Your task to perform on an android device: change keyboard looks Image 0: 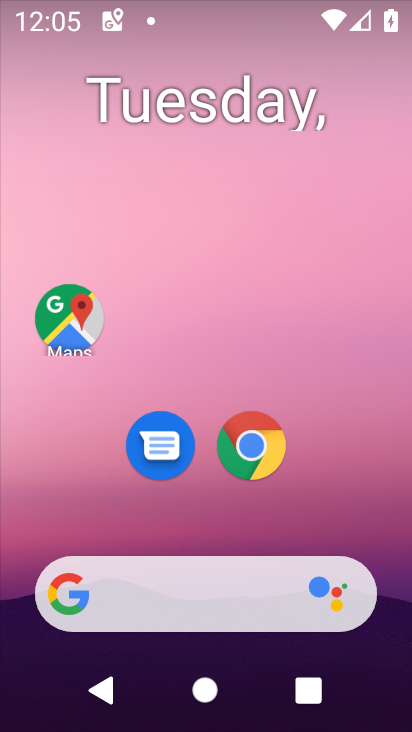
Step 0: drag from (327, 469) to (260, 117)
Your task to perform on an android device: change keyboard looks Image 1: 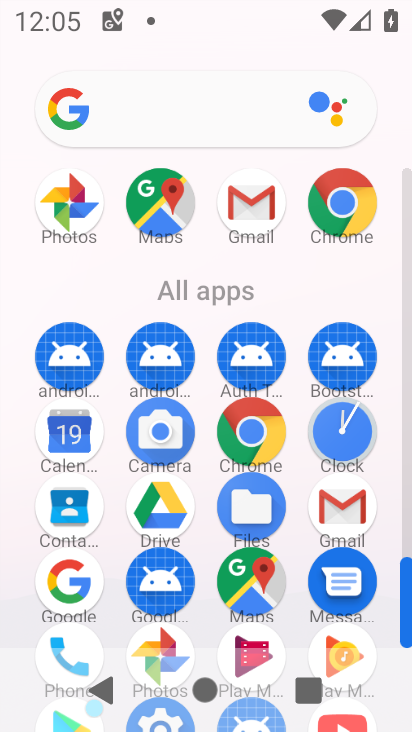
Step 1: drag from (299, 589) to (310, 315)
Your task to perform on an android device: change keyboard looks Image 2: 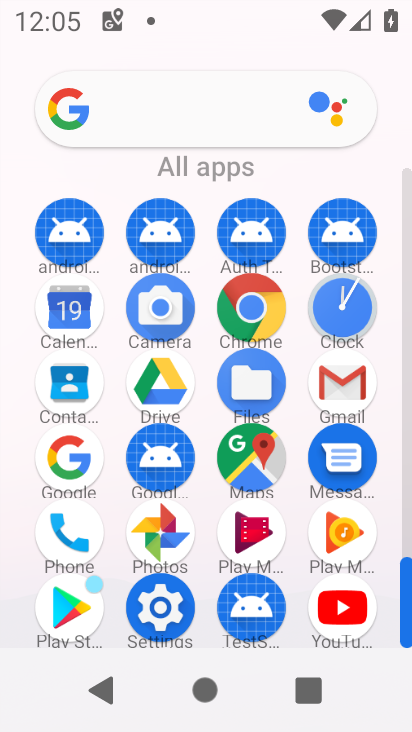
Step 2: click (167, 601)
Your task to perform on an android device: change keyboard looks Image 3: 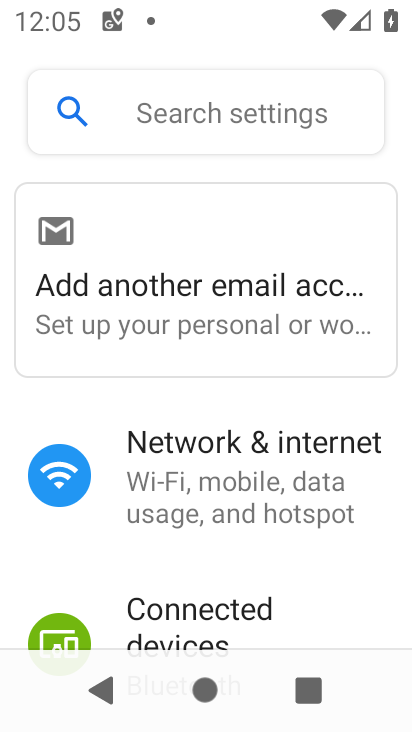
Step 3: drag from (314, 557) to (276, 140)
Your task to perform on an android device: change keyboard looks Image 4: 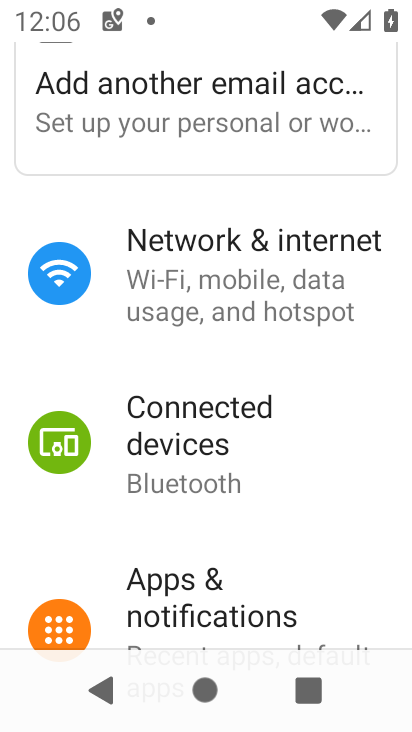
Step 4: drag from (287, 558) to (222, 129)
Your task to perform on an android device: change keyboard looks Image 5: 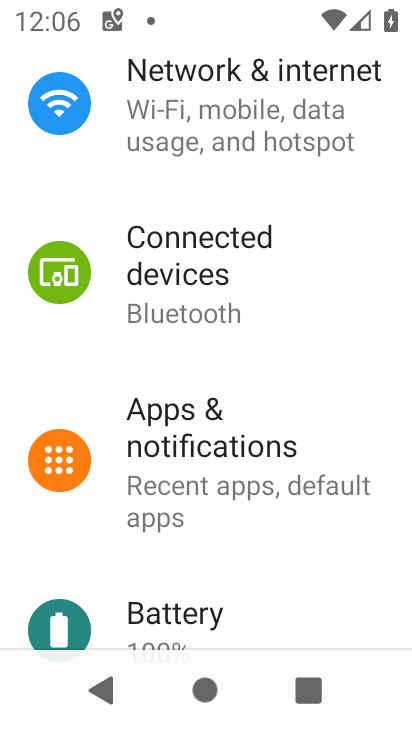
Step 5: drag from (219, 571) to (211, 160)
Your task to perform on an android device: change keyboard looks Image 6: 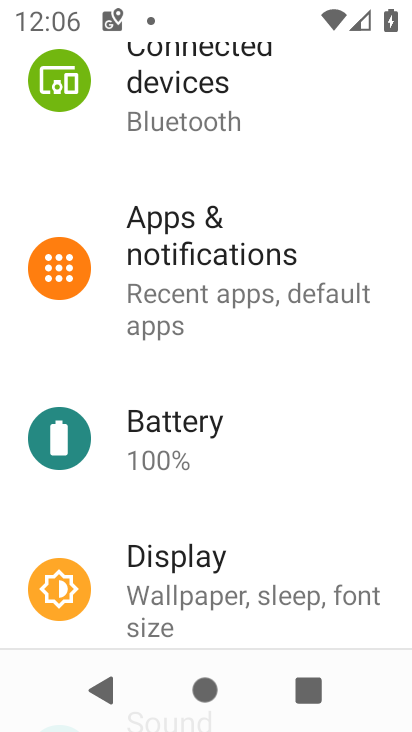
Step 6: drag from (233, 567) to (252, 246)
Your task to perform on an android device: change keyboard looks Image 7: 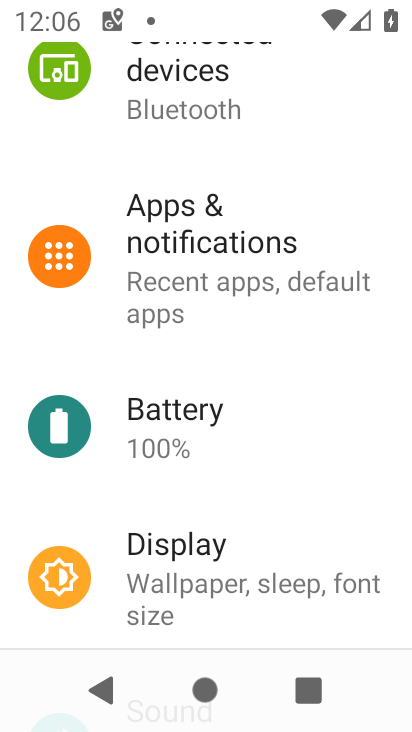
Step 7: drag from (239, 557) to (266, 240)
Your task to perform on an android device: change keyboard looks Image 8: 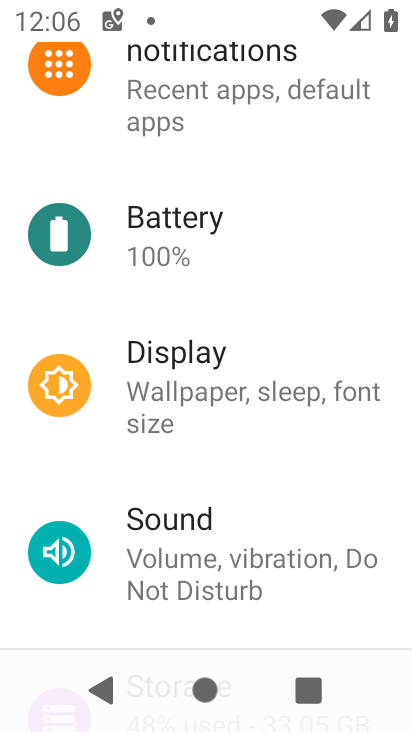
Step 8: drag from (344, 605) to (310, 147)
Your task to perform on an android device: change keyboard looks Image 9: 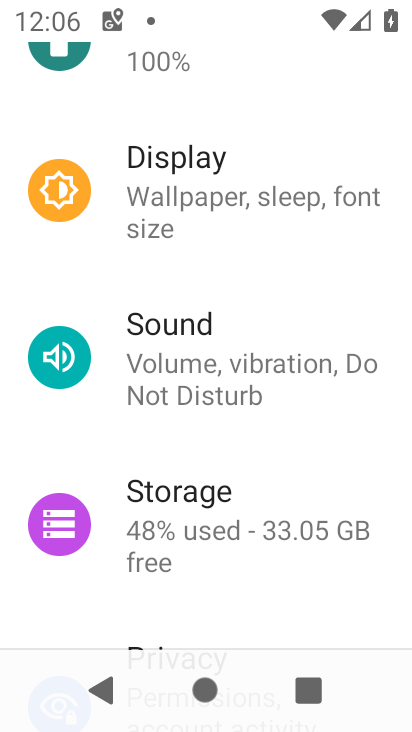
Step 9: drag from (250, 447) to (210, 203)
Your task to perform on an android device: change keyboard looks Image 10: 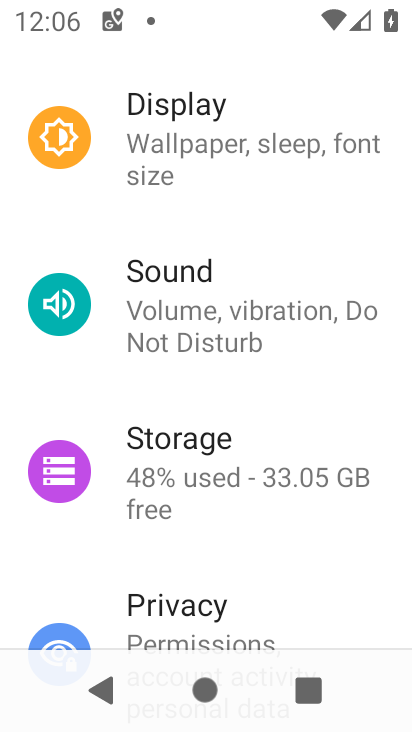
Step 10: drag from (277, 561) to (234, 196)
Your task to perform on an android device: change keyboard looks Image 11: 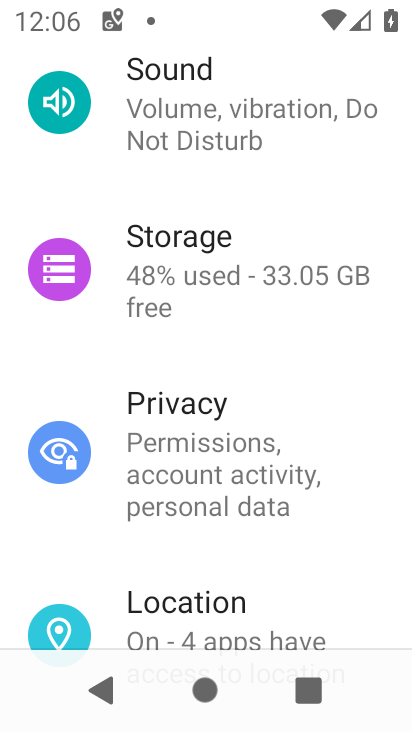
Step 11: drag from (280, 580) to (279, 278)
Your task to perform on an android device: change keyboard looks Image 12: 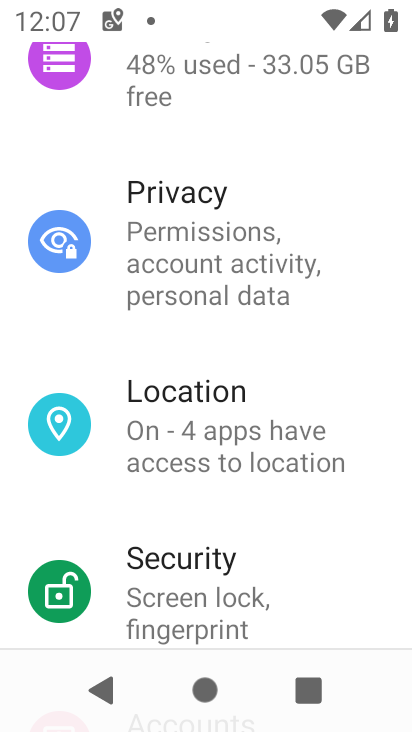
Step 12: drag from (299, 569) to (269, 136)
Your task to perform on an android device: change keyboard looks Image 13: 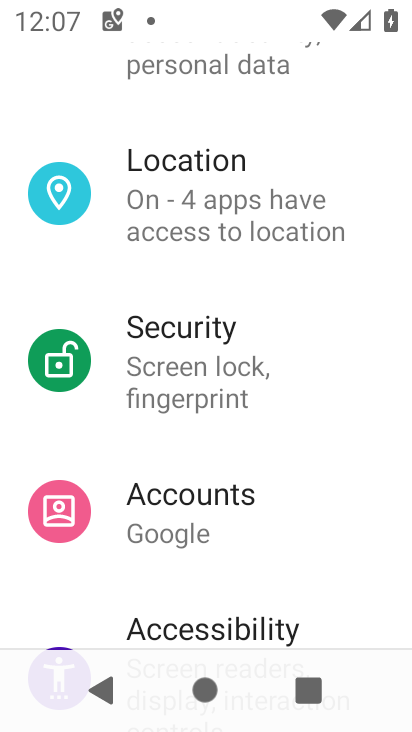
Step 13: drag from (218, 575) to (249, 152)
Your task to perform on an android device: change keyboard looks Image 14: 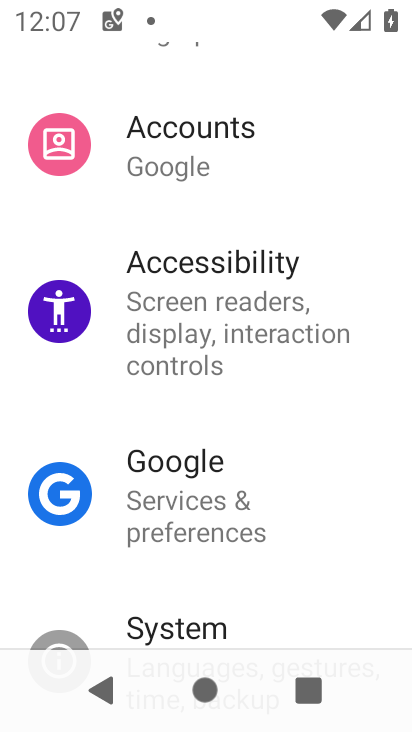
Step 14: drag from (283, 569) to (268, 190)
Your task to perform on an android device: change keyboard looks Image 15: 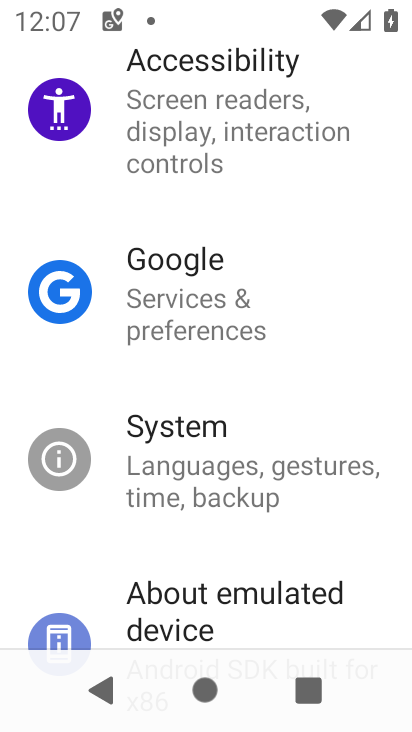
Step 15: click (245, 484)
Your task to perform on an android device: change keyboard looks Image 16: 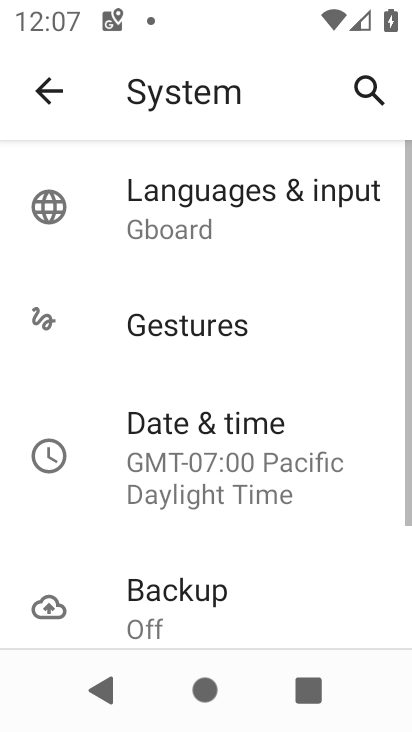
Step 16: click (205, 218)
Your task to perform on an android device: change keyboard looks Image 17: 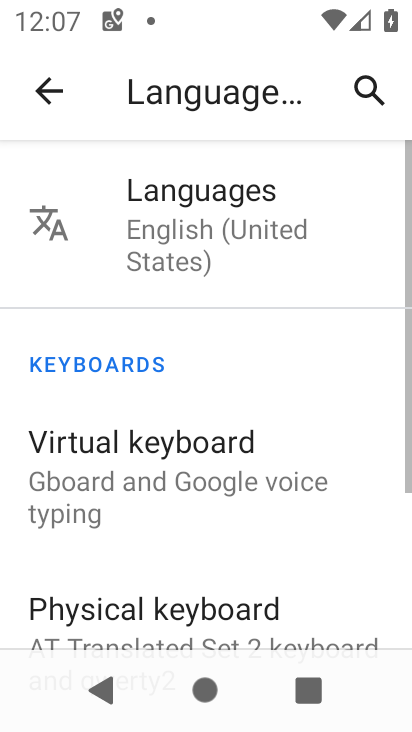
Step 17: click (203, 455)
Your task to perform on an android device: change keyboard looks Image 18: 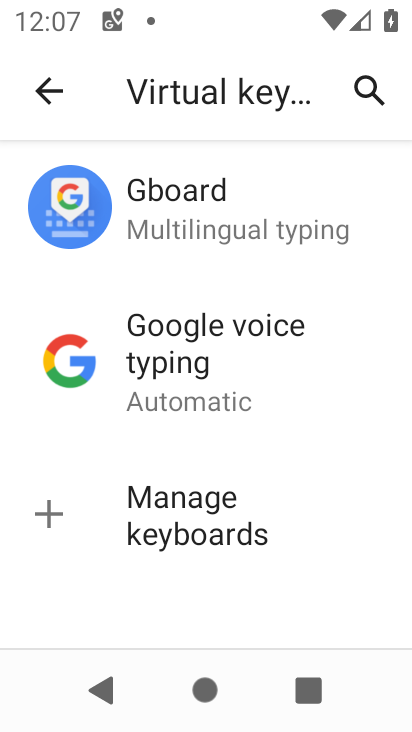
Step 18: click (208, 216)
Your task to perform on an android device: change keyboard looks Image 19: 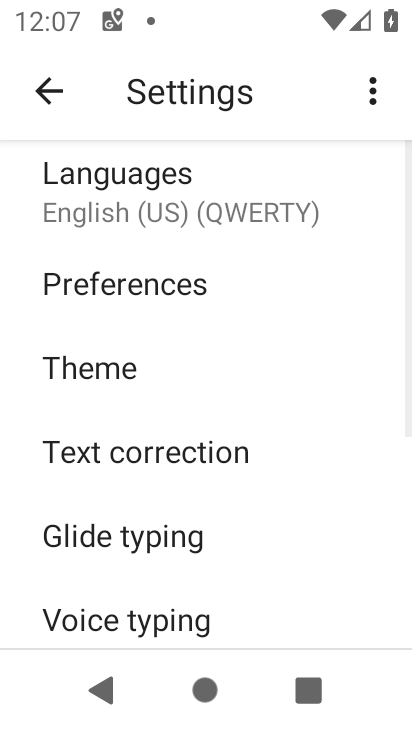
Step 19: click (136, 390)
Your task to perform on an android device: change keyboard looks Image 20: 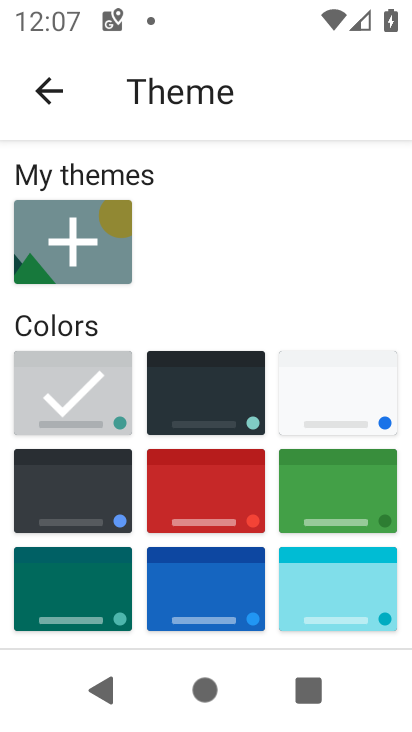
Step 20: click (315, 392)
Your task to perform on an android device: change keyboard looks Image 21: 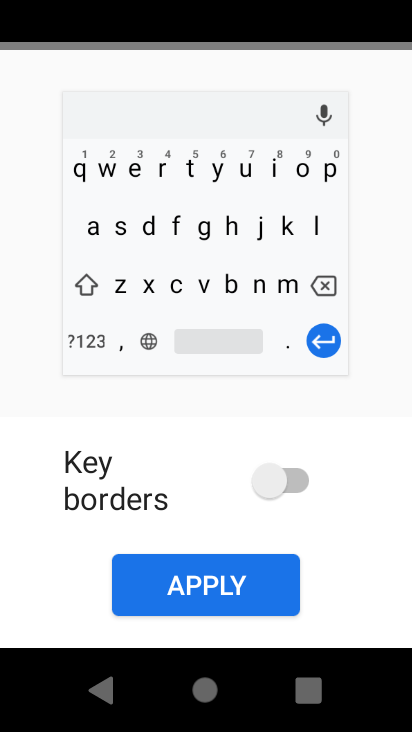
Step 21: click (212, 591)
Your task to perform on an android device: change keyboard looks Image 22: 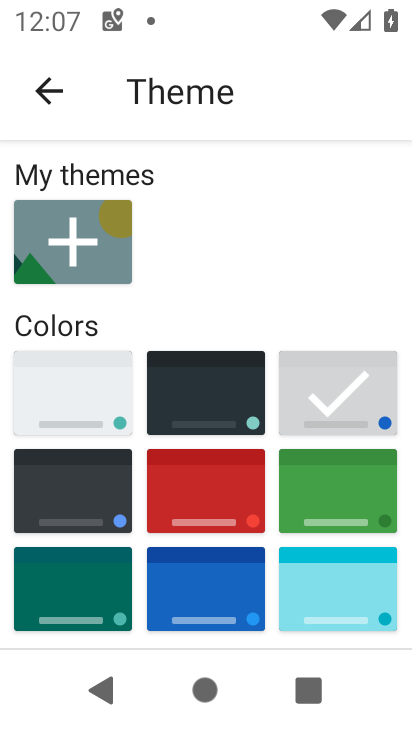
Step 22: task complete